Your task to perform on an android device: allow notifications from all sites in the chrome app Image 0: 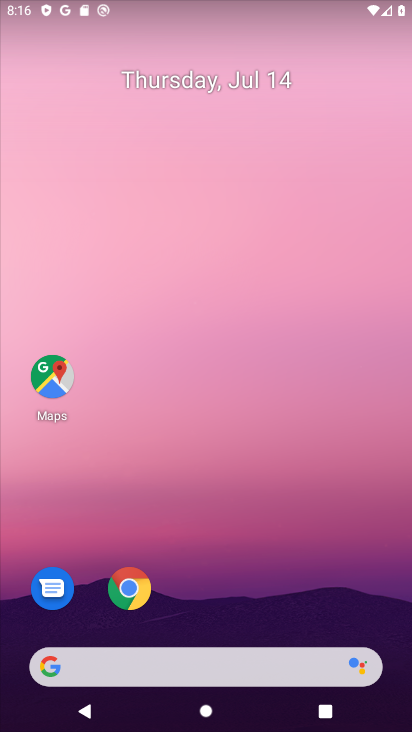
Step 0: drag from (370, 595) to (297, 189)
Your task to perform on an android device: allow notifications from all sites in the chrome app Image 1: 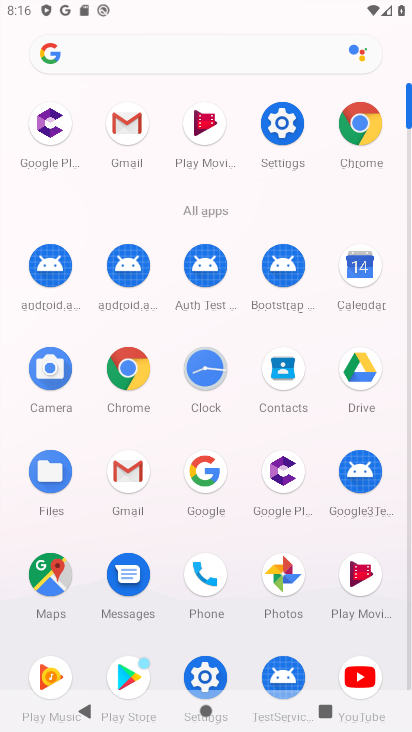
Step 1: click (362, 133)
Your task to perform on an android device: allow notifications from all sites in the chrome app Image 2: 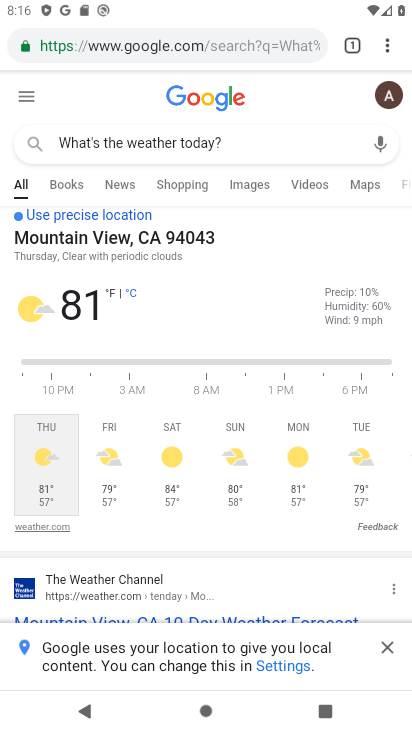
Step 2: click (385, 49)
Your task to perform on an android device: allow notifications from all sites in the chrome app Image 3: 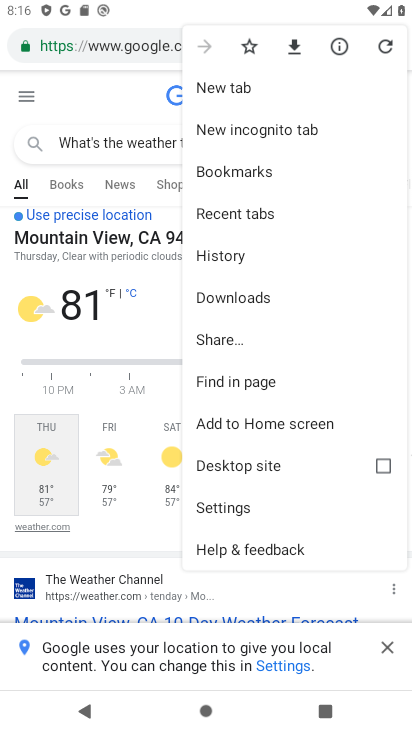
Step 3: click (254, 515)
Your task to perform on an android device: allow notifications from all sites in the chrome app Image 4: 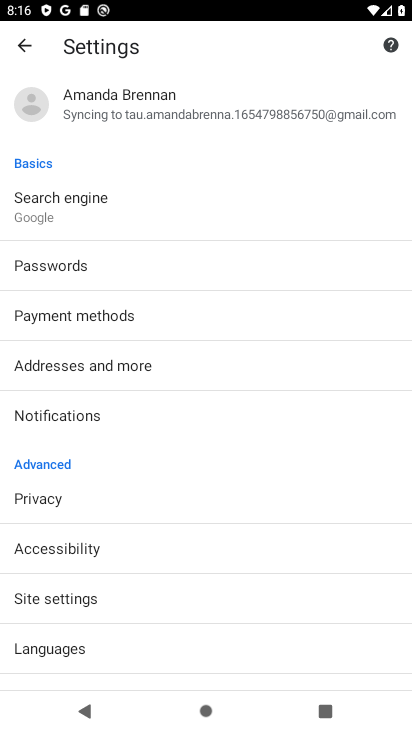
Step 4: click (157, 591)
Your task to perform on an android device: allow notifications from all sites in the chrome app Image 5: 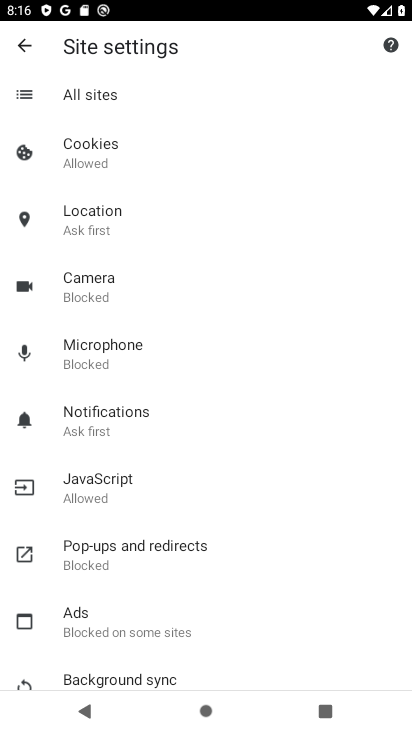
Step 5: click (134, 412)
Your task to perform on an android device: allow notifications from all sites in the chrome app Image 6: 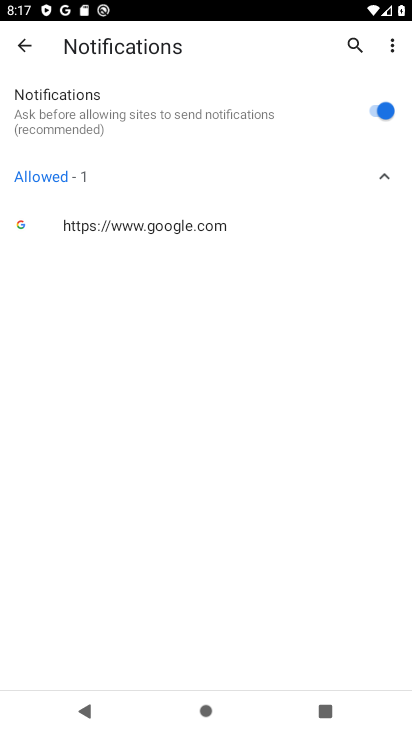
Step 6: task complete